Your task to perform on an android device: Open maps Image 0: 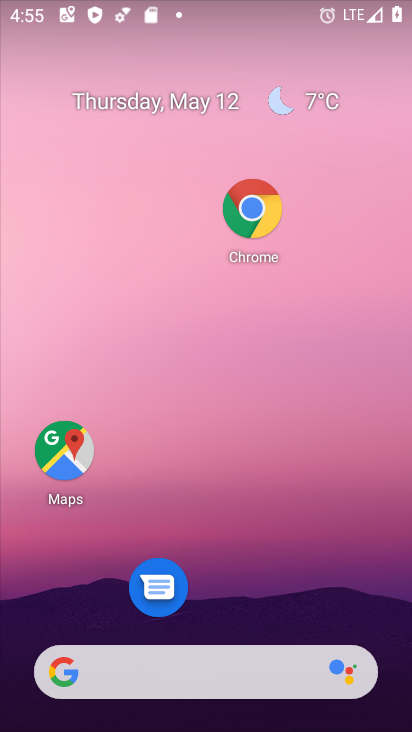
Step 0: click (71, 475)
Your task to perform on an android device: Open maps Image 1: 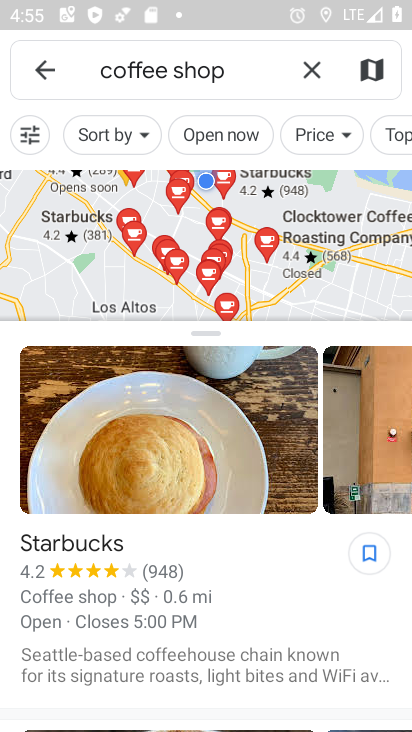
Step 1: task complete